Your task to perform on an android device: open chrome and create a bookmark for the current page Image 0: 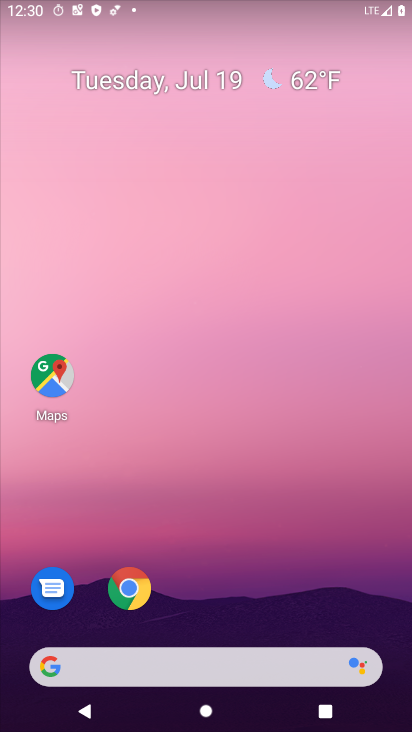
Step 0: click (139, 583)
Your task to perform on an android device: open chrome and create a bookmark for the current page Image 1: 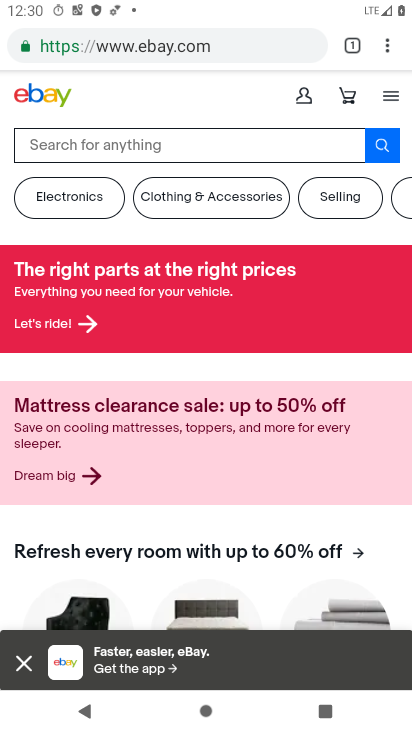
Step 1: click (392, 50)
Your task to perform on an android device: open chrome and create a bookmark for the current page Image 2: 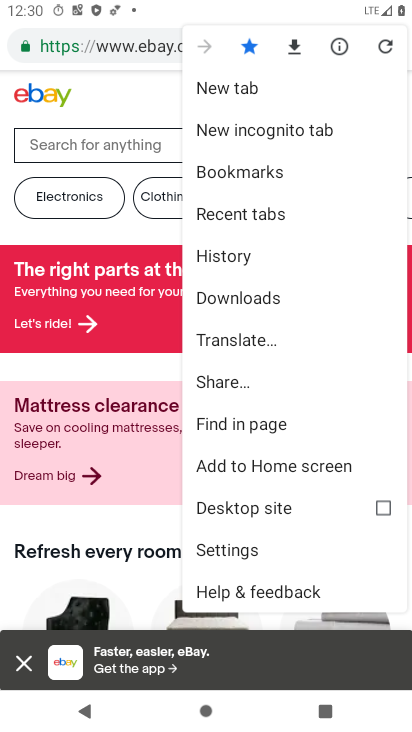
Step 2: task complete